Your task to perform on an android device: turn off wifi Image 0: 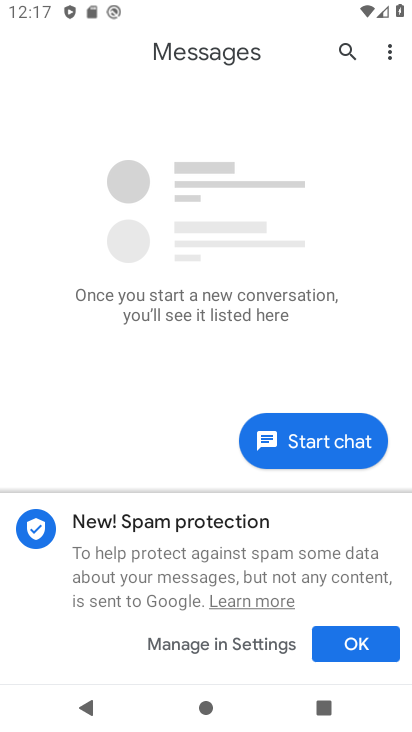
Step 0: press home button
Your task to perform on an android device: turn off wifi Image 1: 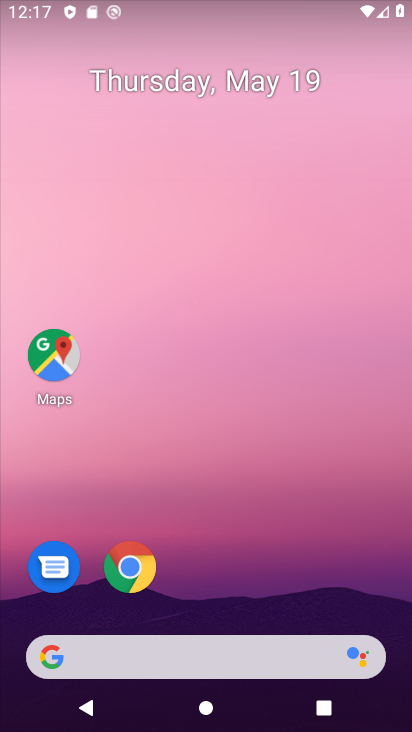
Step 1: drag from (243, 494) to (262, 30)
Your task to perform on an android device: turn off wifi Image 2: 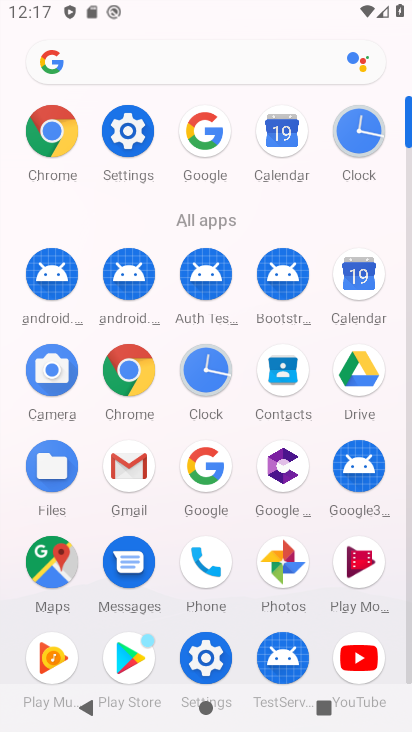
Step 2: click (136, 126)
Your task to perform on an android device: turn off wifi Image 3: 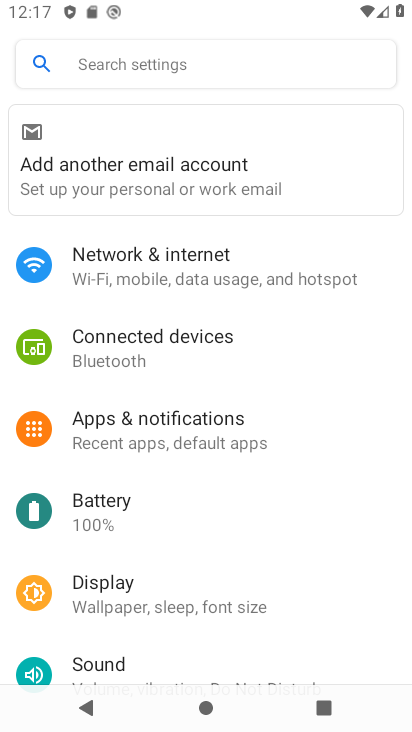
Step 3: click (176, 255)
Your task to perform on an android device: turn off wifi Image 4: 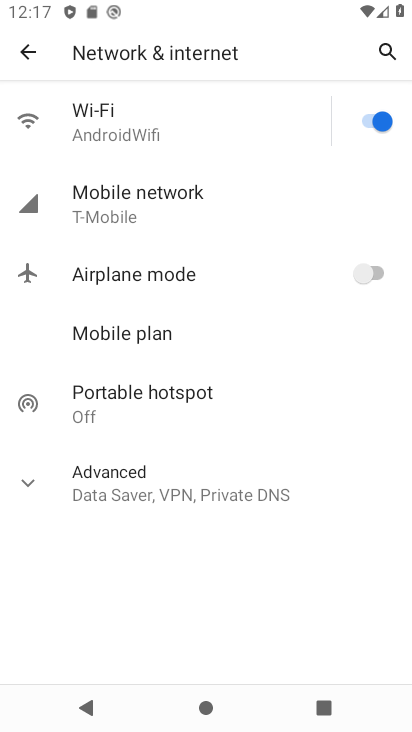
Step 4: click (365, 115)
Your task to perform on an android device: turn off wifi Image 5: 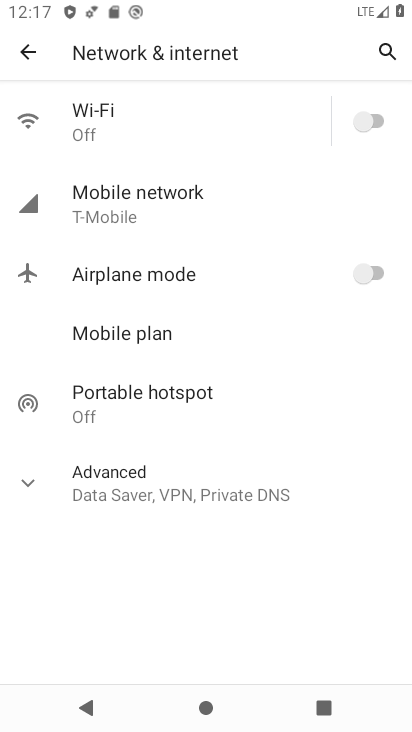
Step 5: task complete